Your task to perform on an android device: Go to Google Image 0: 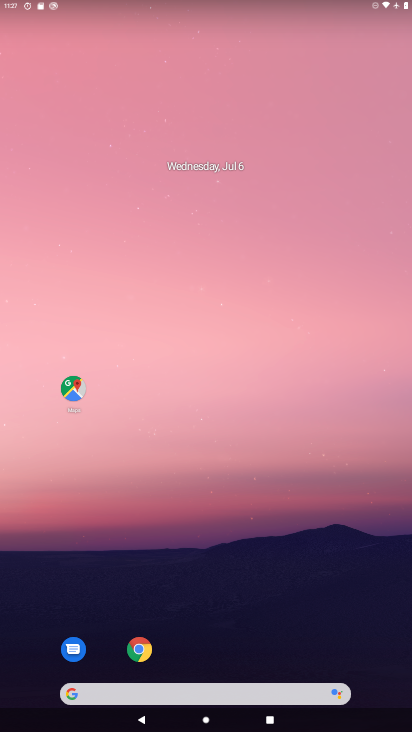
Step 0: drag from (382, 707) to (387, 43)
Your task to perform on an android device: Go to Google Image 1: 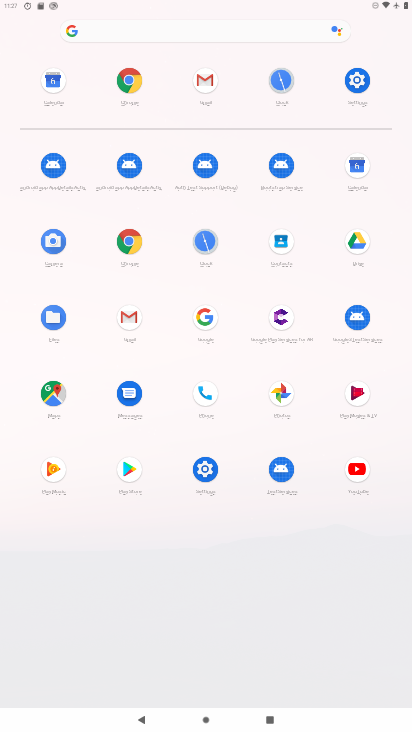
Step 1: click (203, 312)
Your task to perform on an android device: Go to Google Image 2: 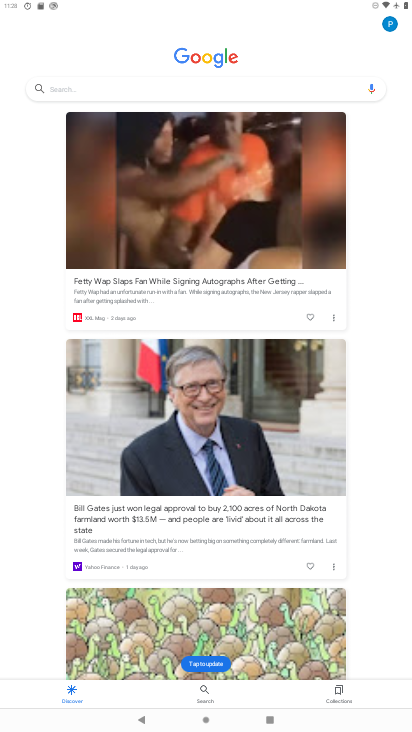
Step 2: task complete